Your task to perform on an android device: Show me recent news Image 0: 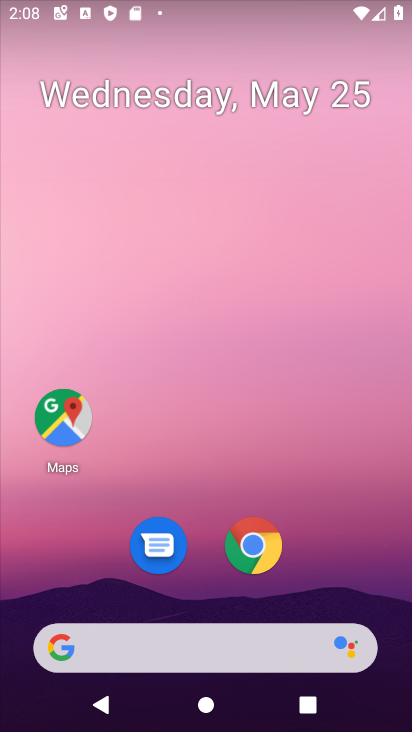
Step 0: drag from (353, 537) to (349, 201)
Your task to perform on an android device: Show me recent news Image 1: 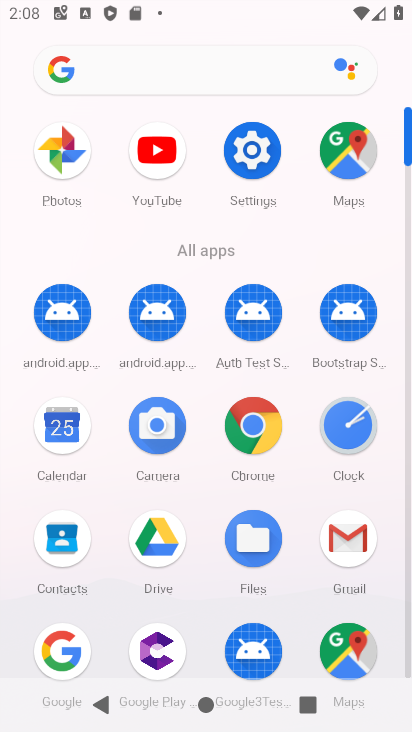
Step 1: click (195, 75)
Your task to perform on an android device: Show me recent news Image 2: 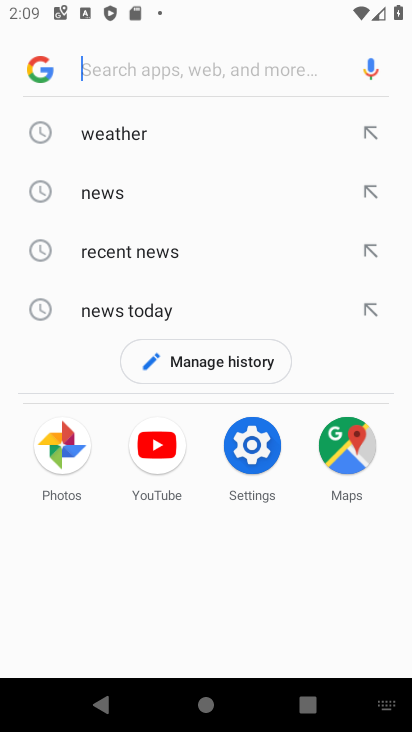
Step 2: click (152, 243)
Your task to perform on an android device: Show me recent news Image 3: 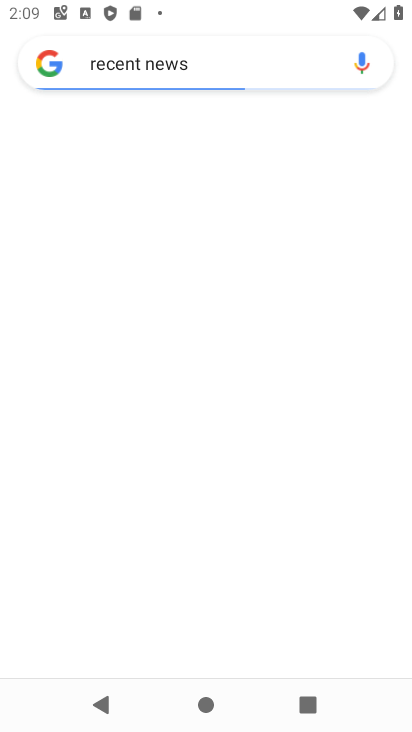
Step 3: task complete